Your task to perform on an android device: Search for pizza restaurants on Maps Image 0: 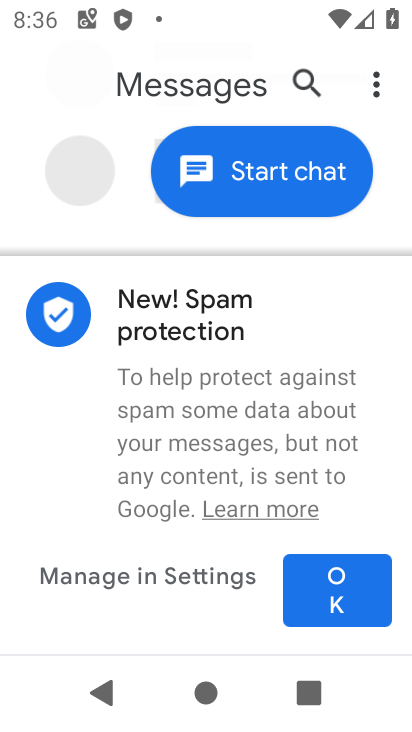
Step 0: press home button
Your task to perform on an android device: Search for pizza restaurants on Maps Image 1: 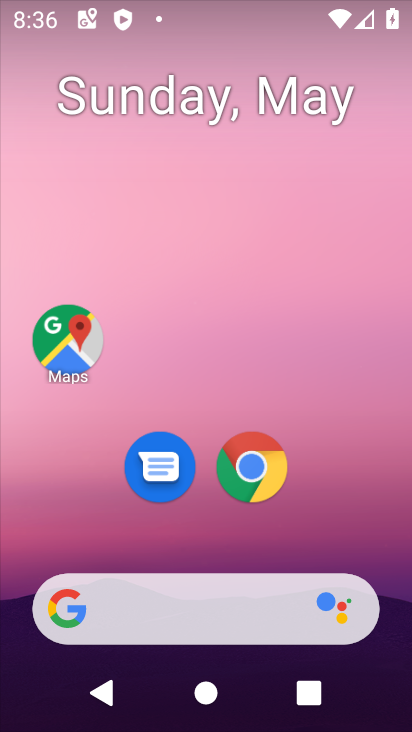
Step 1: click (78, 330)
Your task to perform on an android device: Search for pizza restaurants on Maps Image 2: 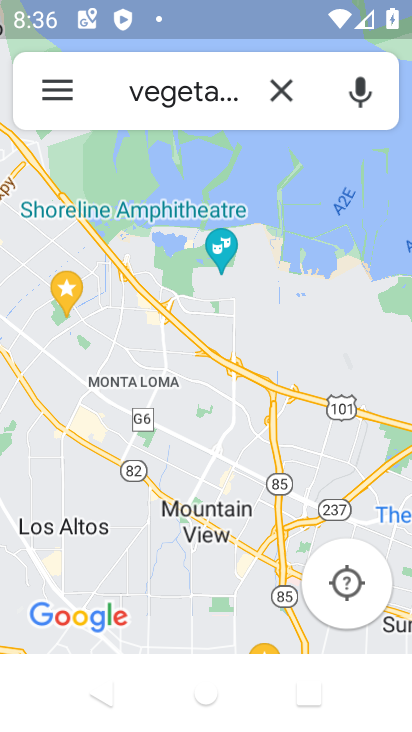
Step 2: click (283, 80)
Your task to perform on an android device: Search for pizza restaurants on Maps Image 3: 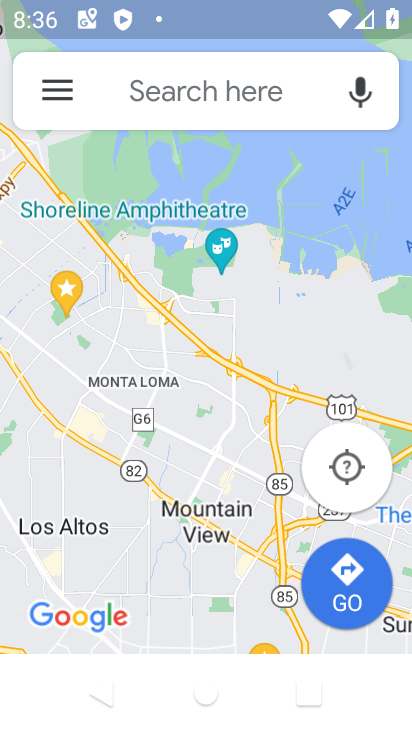
Step 3: click (205, 101)
Your task to perform on an android device: Search for pizza restaurants on Maps Image 4: 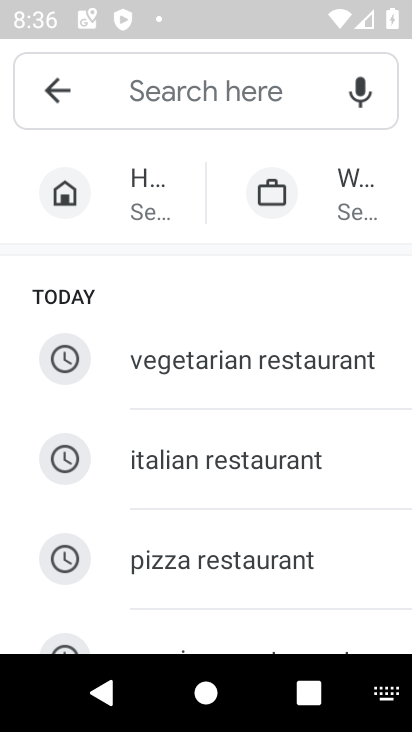
Step 4: click (211, 542)
Your task to perform on an android device: Search for pizza restaurants on Maps Image 5: 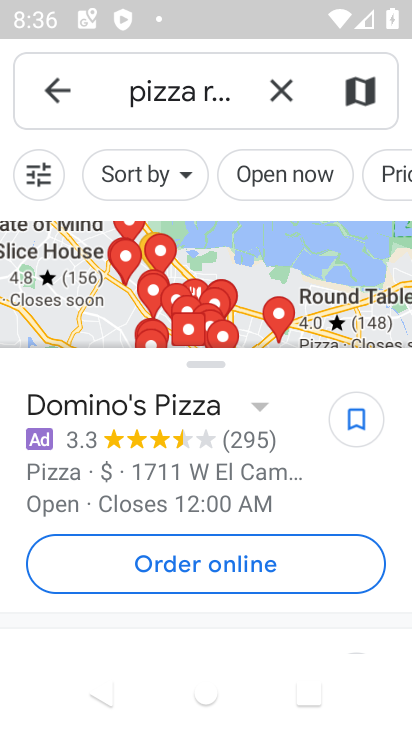
Step 5: task complete